Your task to perform on an android device: turn on showing notifications on the lock screen Image 0: 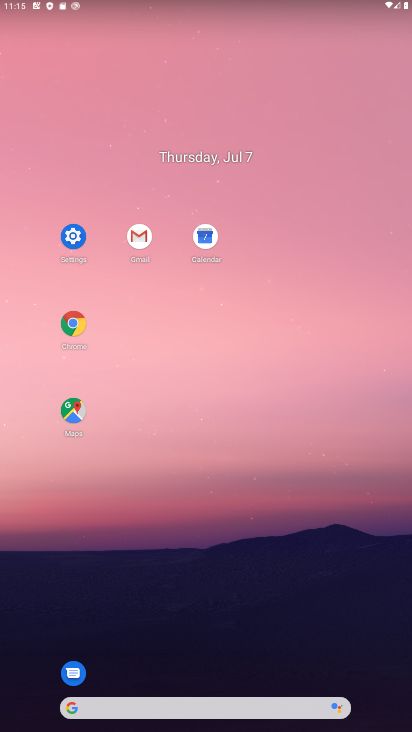
Step 0: click (78, 229)
Your task to perform on an android device: turn on showing notifications on the lock screen Image 1: 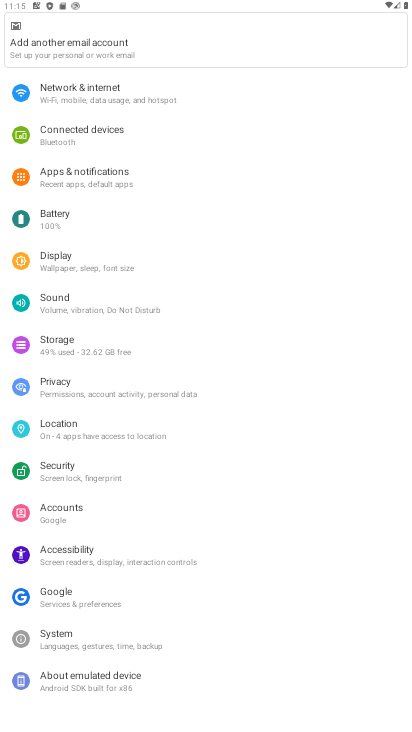
Step 1: click (120, 173)
Your task to perform on an android device: turn on showing notifications on the lock screen Image 2: 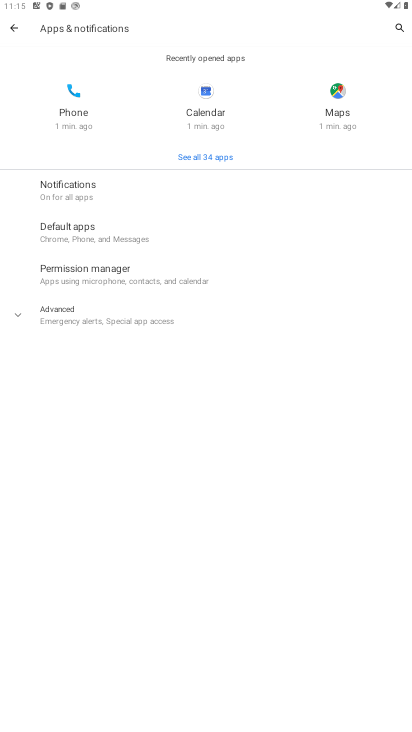
Step 2: click (127, 182)
Your task to perform on an android device: turn on showing notifications on the lock screen Image 3: 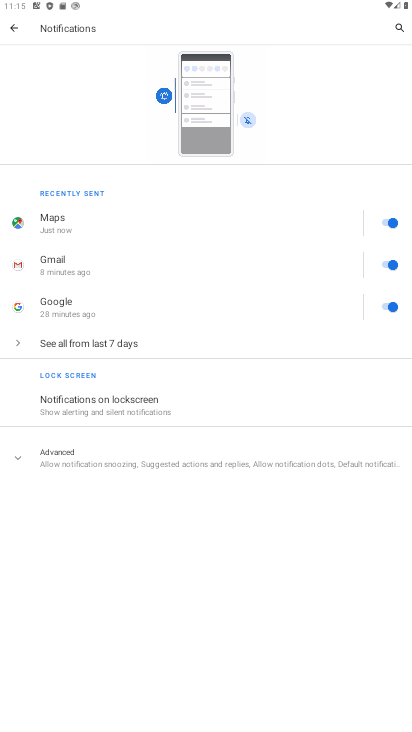
Step 3: click (119, 406)
Your task to perform on an android device: turn on showing notifications on the lock screen Image 4: 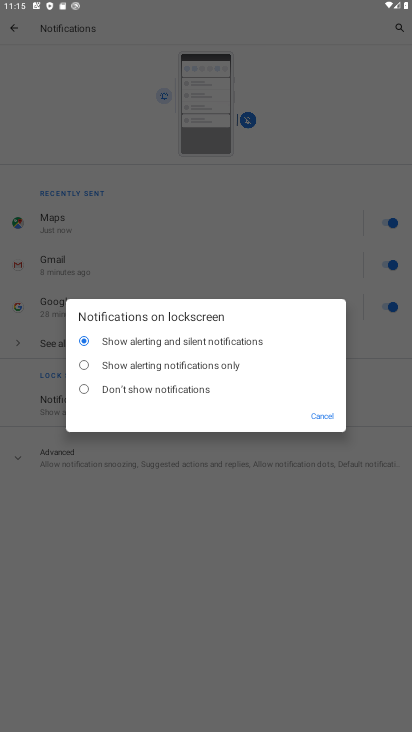
Step 4: task complete